Your task to perform on an android device: set default search engine in the chrome app Image 0: 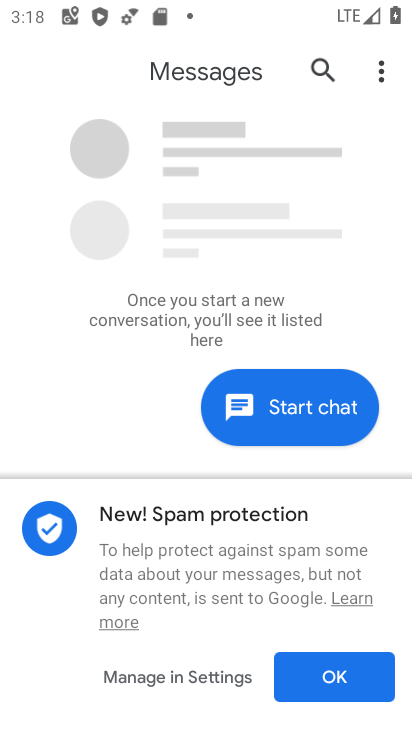
Step 0: press home button
Your task to perform on an android device: set default search engine in the chrome app Image 1: 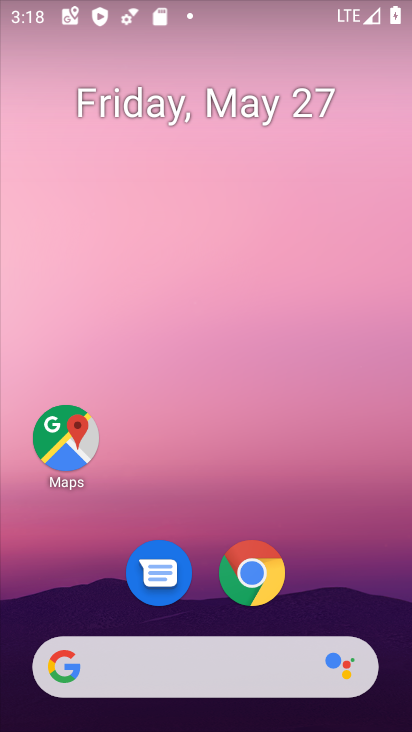
Step 1: click (252, 576)
Your task to perform on an android device: set default search engine in the chrome app Image 2: 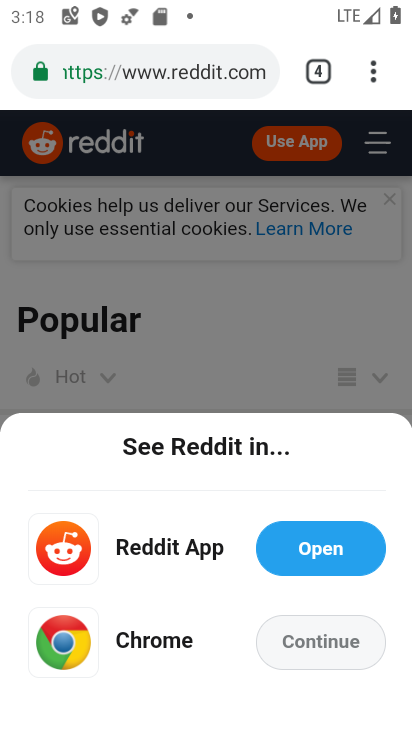
Step 2: click (365, 67)
Your task to perform on an android device: set default search engine in the chrome app Image 3: 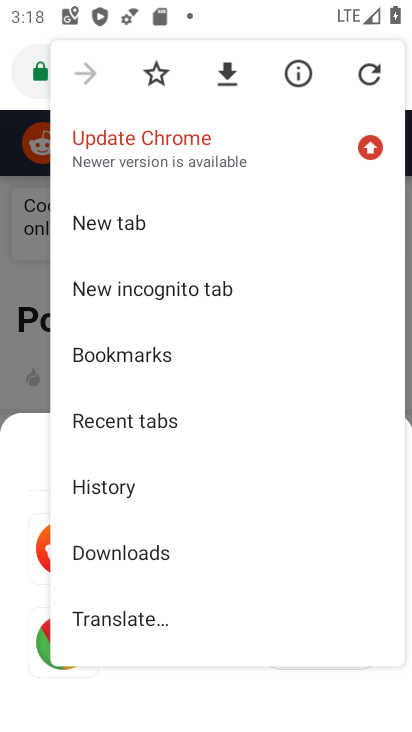
Step 3: drag from (174, 532) to (188, 99)
Your task to perform on an android device: set default search engine in the chrome app Image 4: 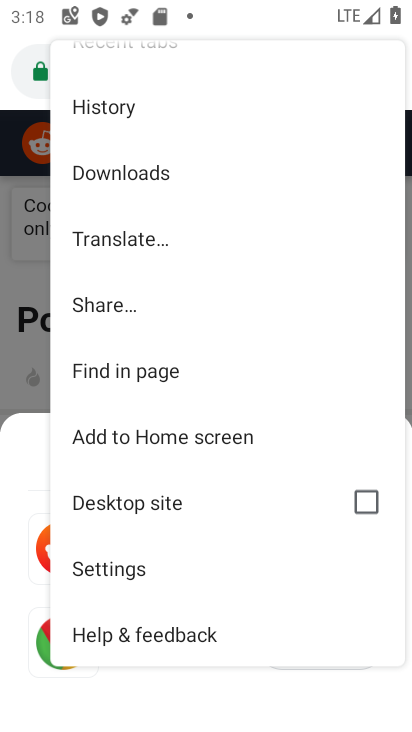
Step 4: click (131, 569)
Your task to perform on an android device: set default search engine in the chrome app Image 5: 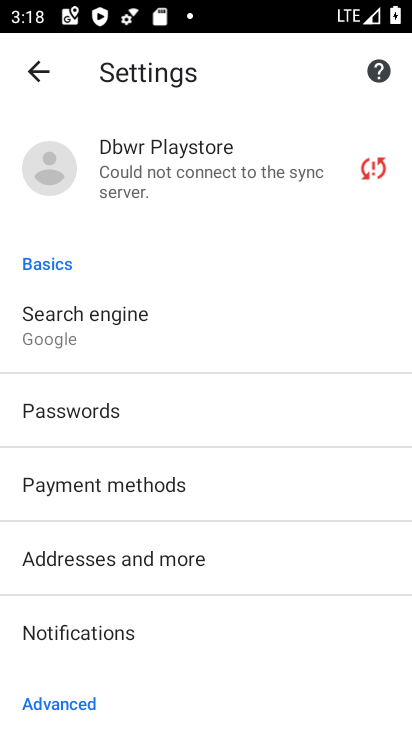
Step 5: click (178, 330)
Your task to perform on an android device: set default search engine in the chrome app Image 6: 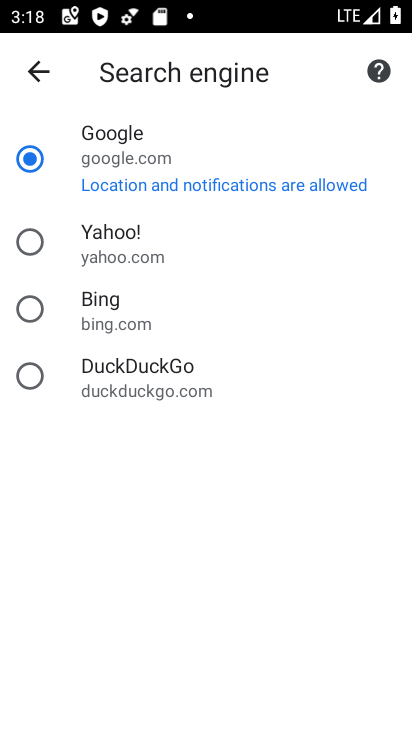
Step 6: task complete